Your task to perform on an android device: toggle wifi Image 0: 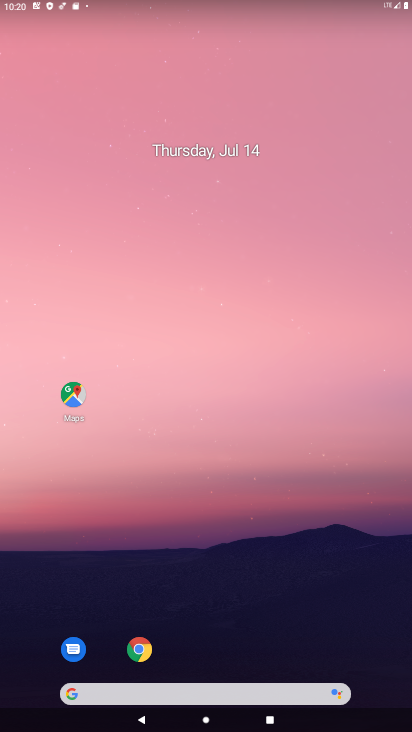
Step 0: drag from (188, 631) to (135, 2)
Your task to perform on an android device: toggle wifi Image 1: 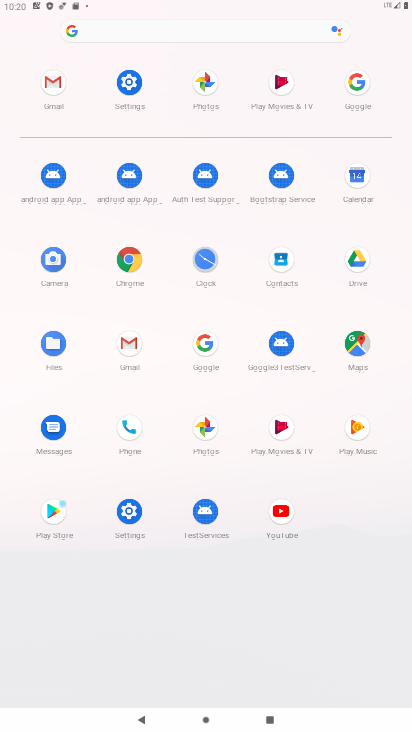
Step 1: click (143, 91)
Your task to perform on an android device: toggle wifi Image 2: 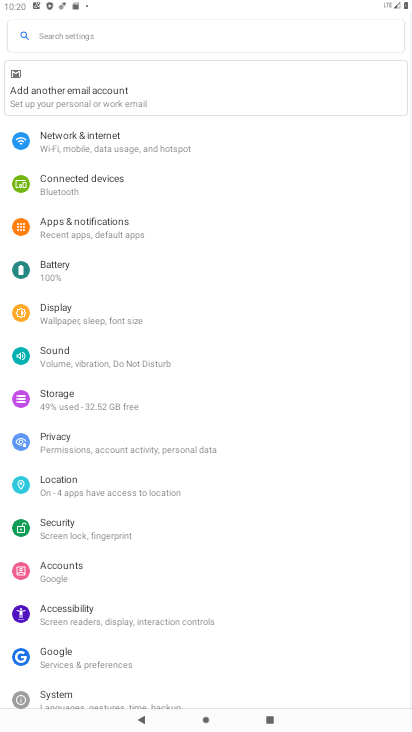
Step 2: click (135, 142)
Your task to perform on an android device: toggle wifi Image 3: 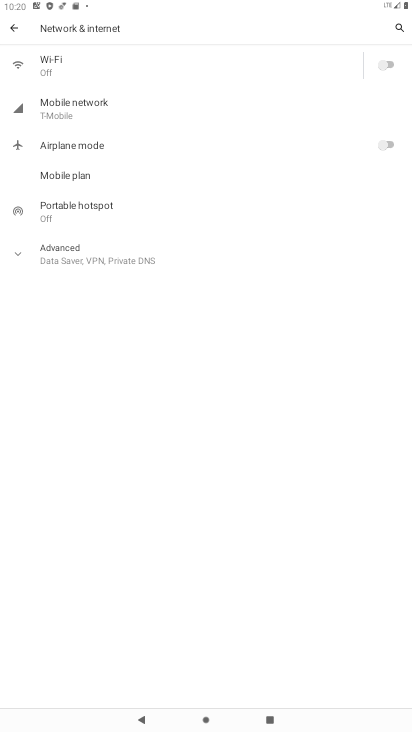
Step 3: click (388, 63)
Your task to perform on an android device: toggle wifi Image 4: 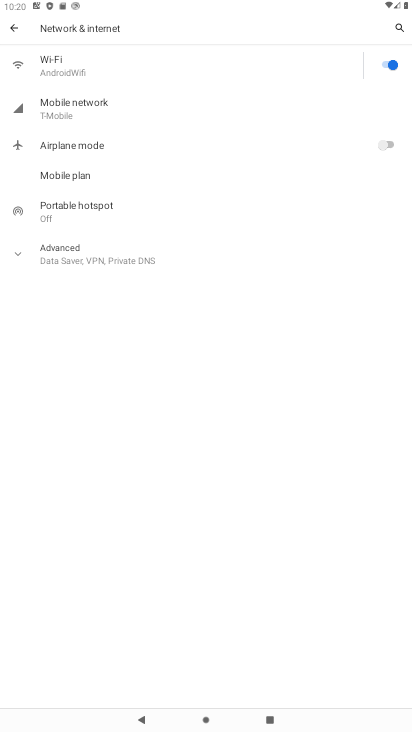
Step 4: task complete